Your task to perform on an android device: turn on translation in the chrome app Image 0: 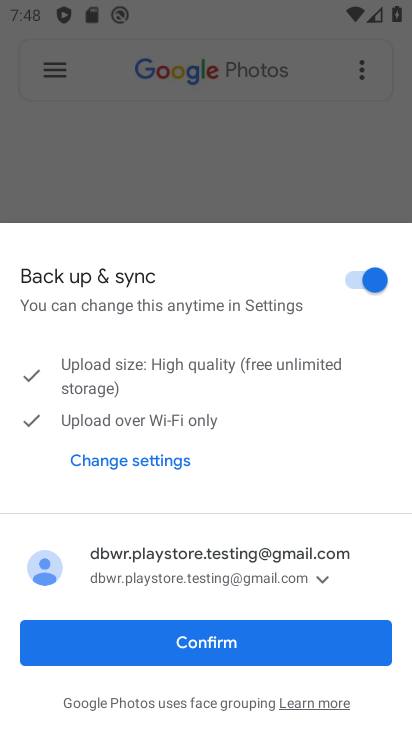
Step 0: press home button
Your task to perform on an android device: turn on translation in the chrome app Image 1: 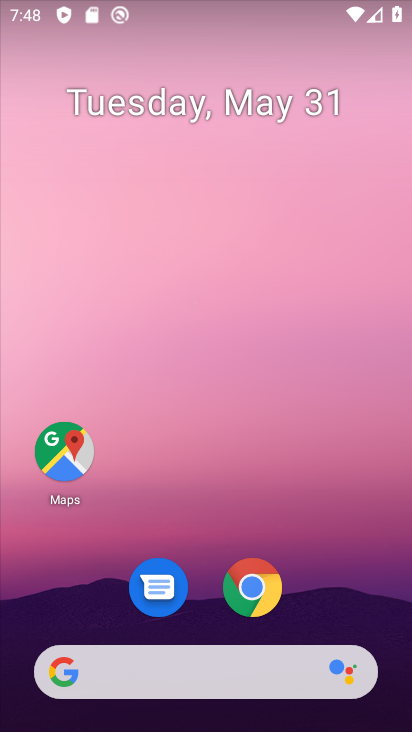
Step 1: click (256, 585)
Your task to perform on an android device: turn on translation in the chrome app Image 2: 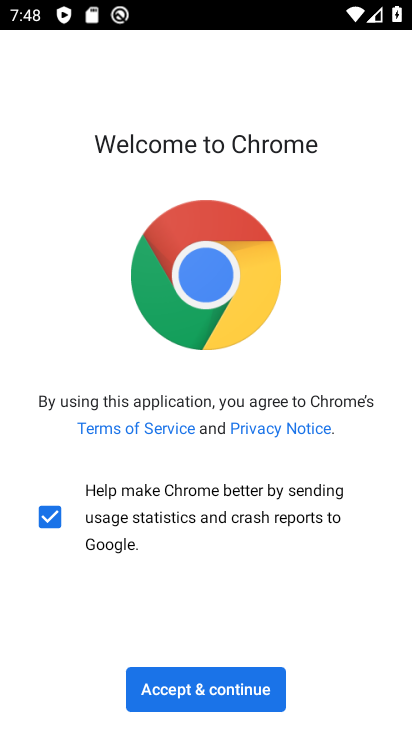
Step 2: click (239, 692)
Your task to perform on an android device: turn on translation in the chrome app Image 3: 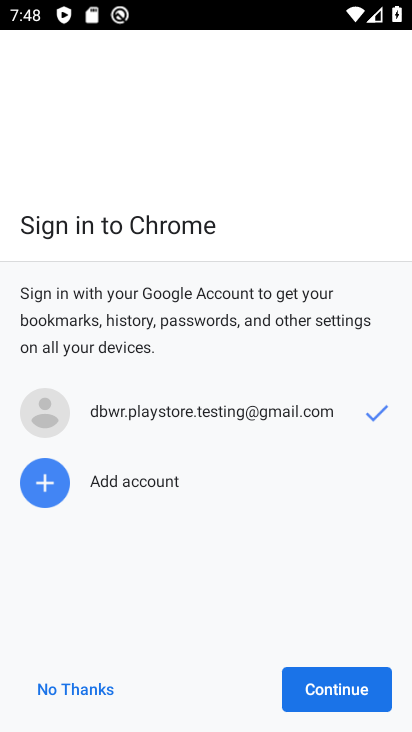
Step 3: click (291, 685)
Your task to perform on an android device: turn on translation in the chrome app Image 4: 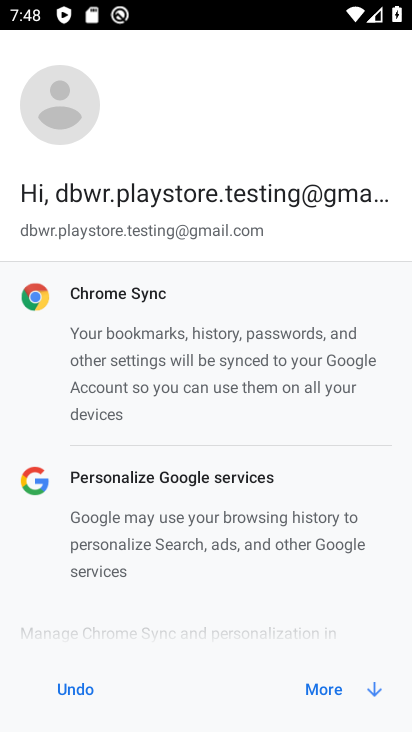
Step 4: click (326, 683)
Your task to perform on an android device: turn on translation in the chrome app Image 5: 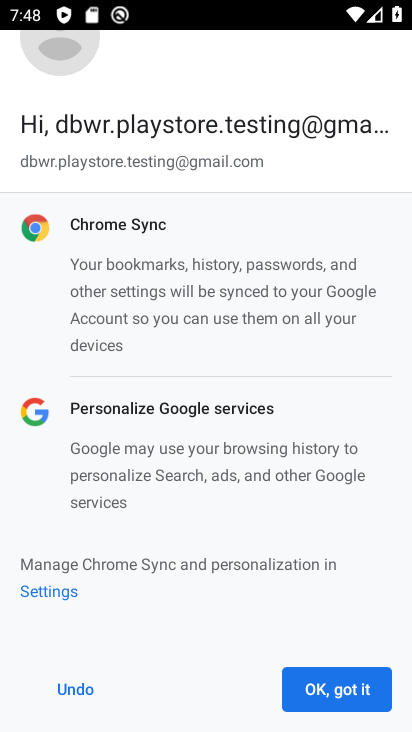
Step 5: click (326, 683)
Your task to perform on an android device: turn on translation in the chrome app Image 6: 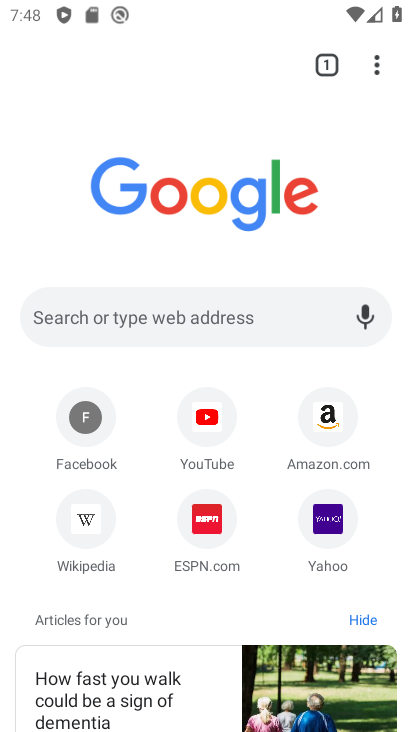
Step 6: click (388, 55)
Your task to perform on an android device: turn on translation in the chrome app Image 7: 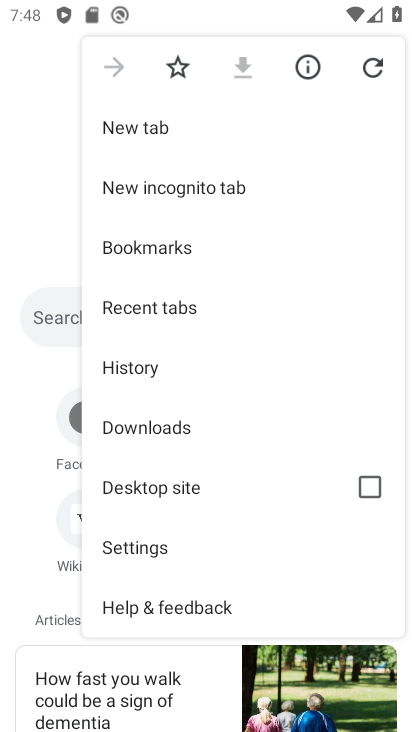
Step 7: click (158, 554)
Your task to perform on an android device: turn on translation in the chrome app Image 8: 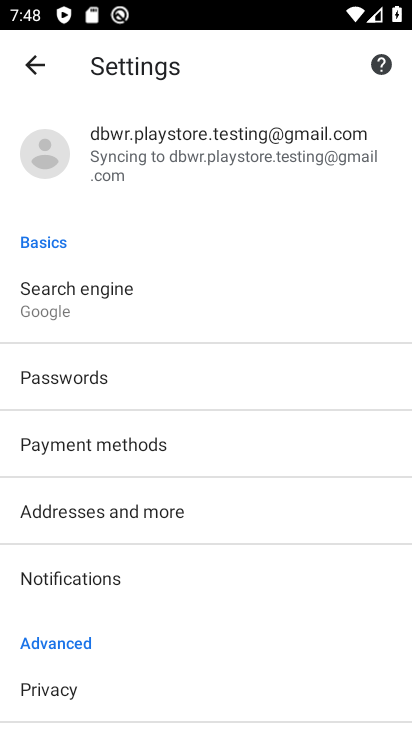
Step 8: drag from (204, 244) to (238, 113)
Your task to perform on an android device: turn on translation in the chrome app Image 9: 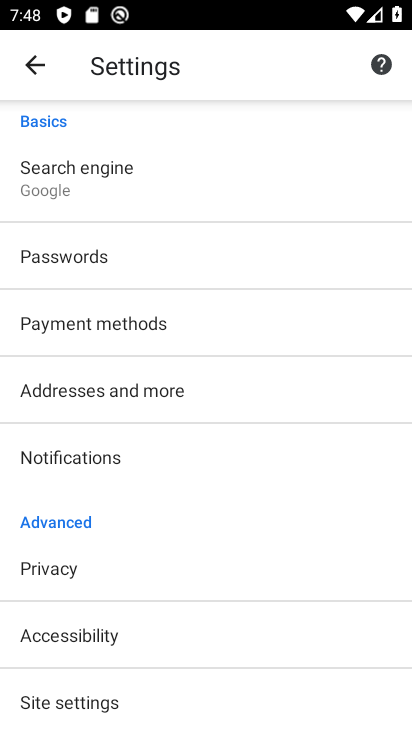
Step 9: click (137, 704)
Your task to perform on an android device: turn on translation in the chrome app Image 10: 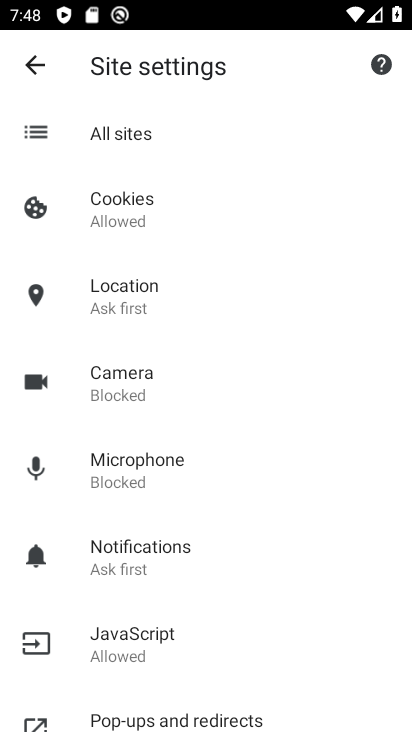
Step 10: drag from (98, 682) to (227, 261)
Your task to perform on an android device: turn on translation in the chrome app Image 11: 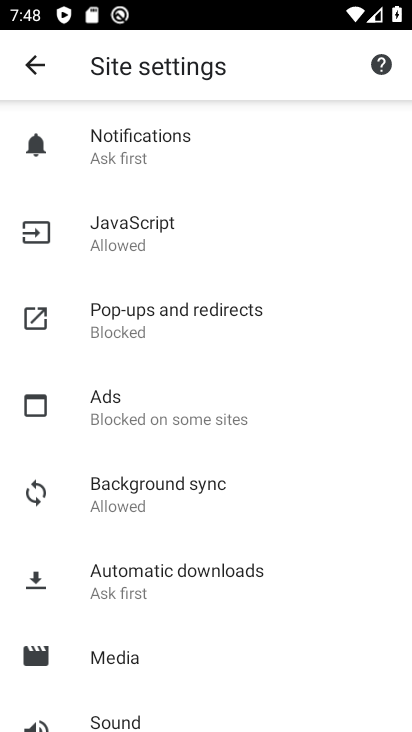
Step 11: drag from (76, 665) to (136, 244)
Your task to perform on an android device: turn on translation in the chrome app Image 12: 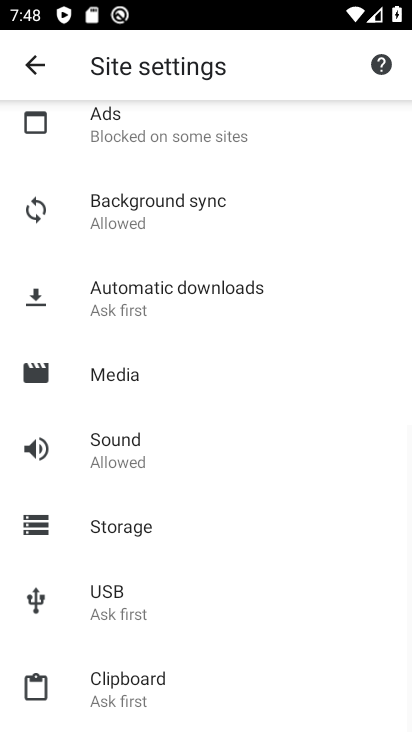
Step 12: click (33, 68)
Your task to perform on an android device: turn on translation in the chrome app Image 13: 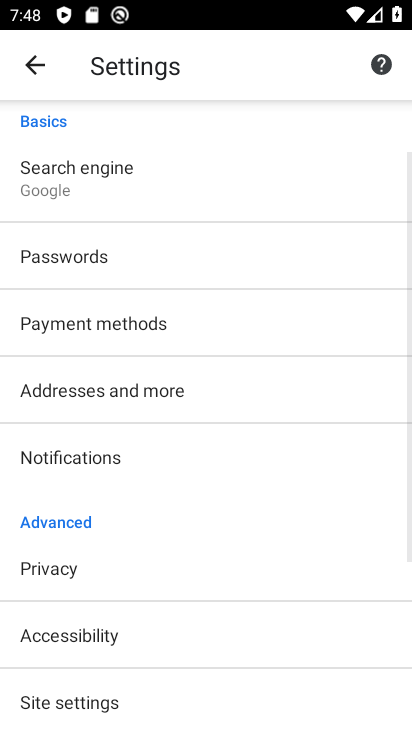
Step 13: drag from (152, 200) to (108, 710)
Your task to perform on an android device: turn on translation in the chrome app Image 14: 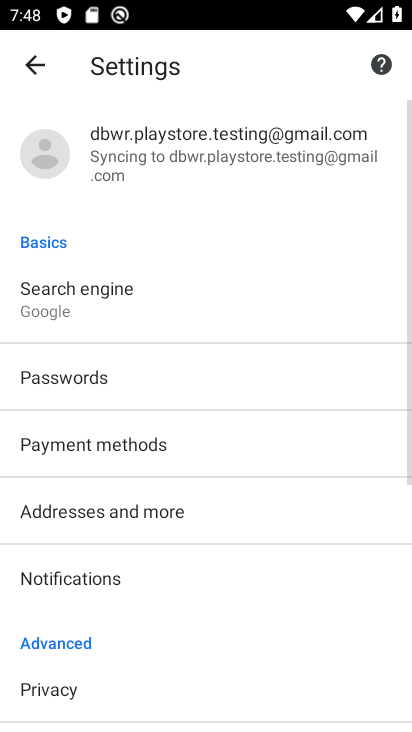
Step 14: drag from (208, 674) to (281, 243)
Your task to perform on an android device: turn on translation in the chrome app Image 15: 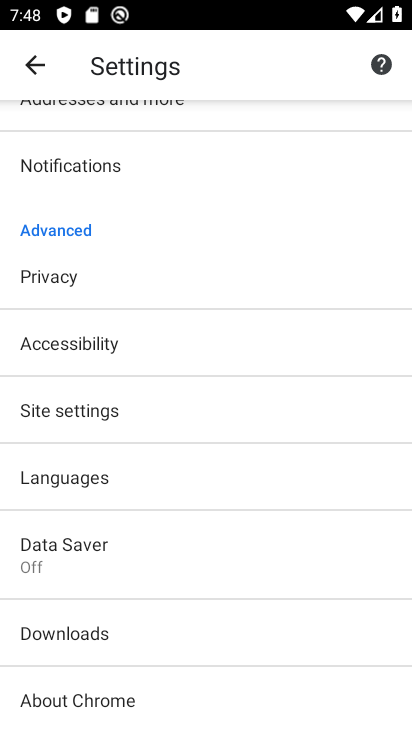
Step 15: click (92, 470)
Your task to perform on an android device: turn on translation in the chrome app Image 16: 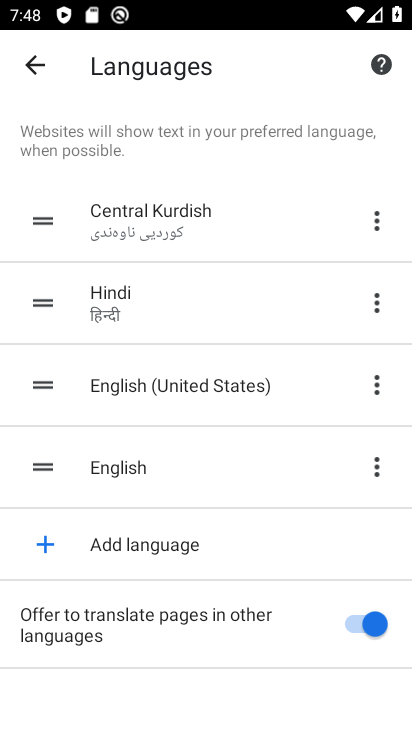
Step 16: task complete